Your task to perform on an android device: Open the web browser Image 0: 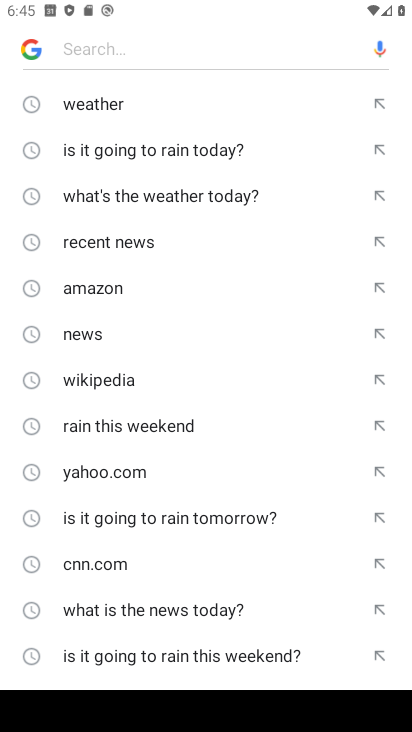
Step 0: press home button
Your task to perform on an android device: Open the web browser Image 1: 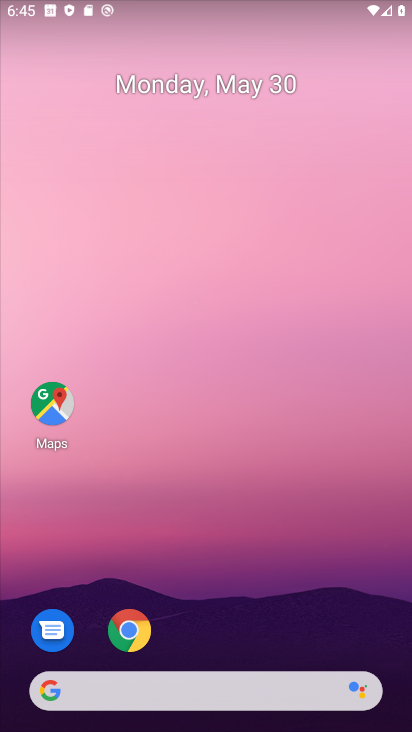
Step 1: click (137, 631)
Your task to perform on an android device: Open the web browser Image 2: 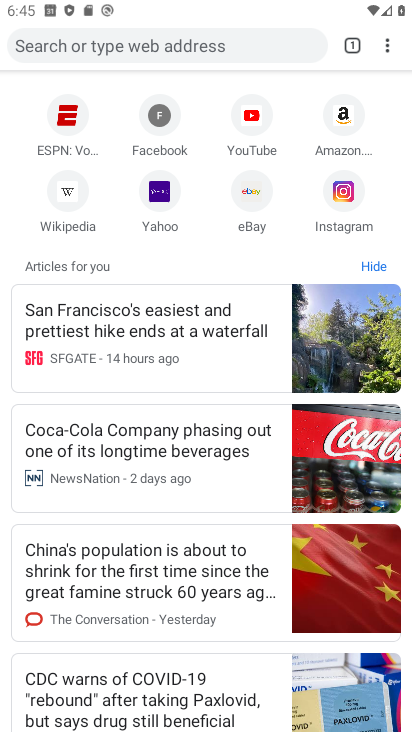
Step 2: task complete